Your task to perform on an android device: Open the phone app and click the voicemail tab. Image 0: 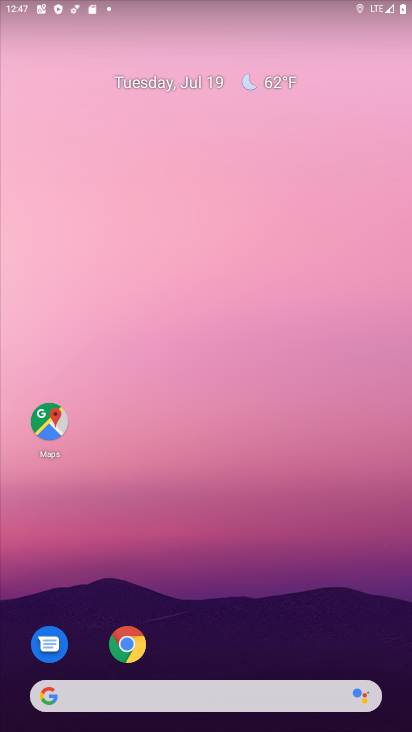
Step 0: drag from (229, 615) to (177, 70)
Your task to perform on an android device: Open the phone app and click the voicemail tab. Image 1: 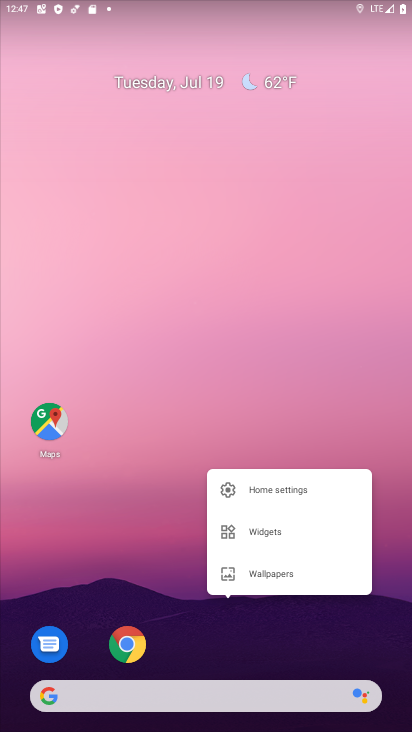
Step 1: click (128, 409)
Your task to perform on an android device: Open the phone app and click the voicemail tab. Image 2: 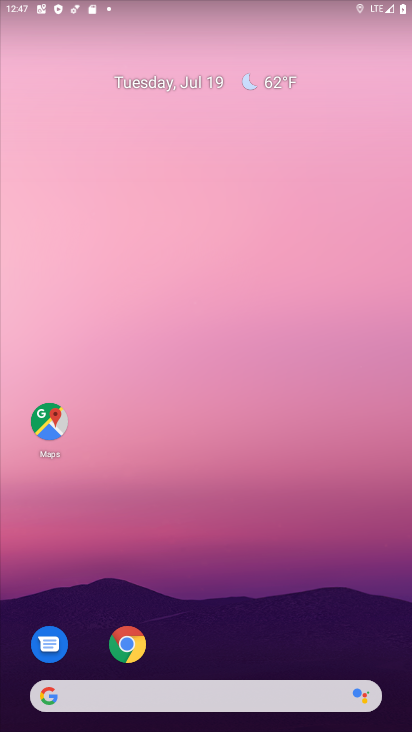
Step 2: drag from (253, 620) to (219, 170)
Your task to perform on an android device: Open the phone app and click the voicemail tab. Image 3: 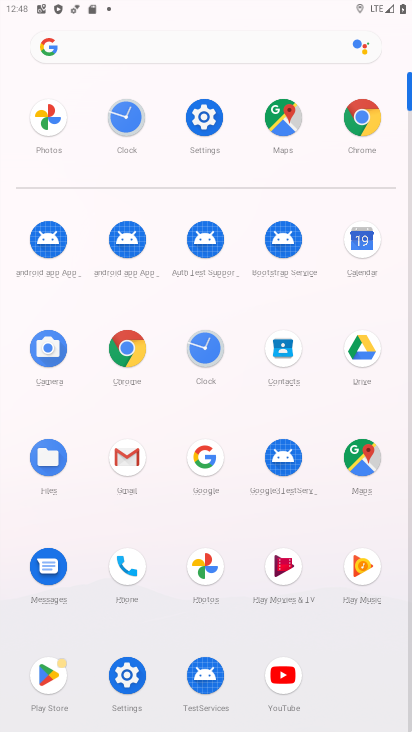
Step 3: click (127, 573)
Your task to perform on an android device: Open the phone app and click the voicemail tab. Image 4: 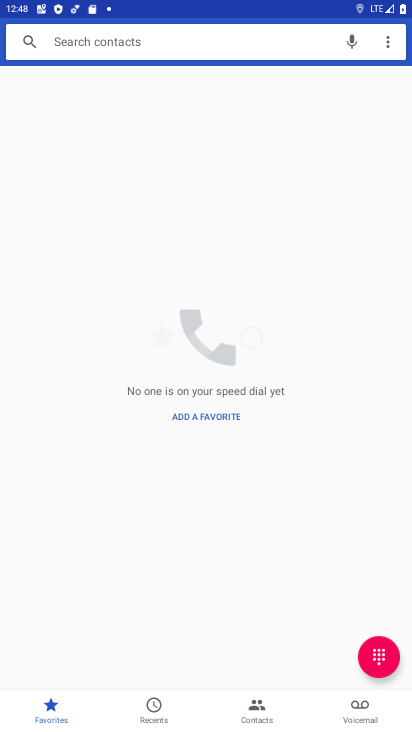
Step 4: click (358, 706)
Your task to perform on an android device: Open the phone app and click the voicemail tab. Image 5: 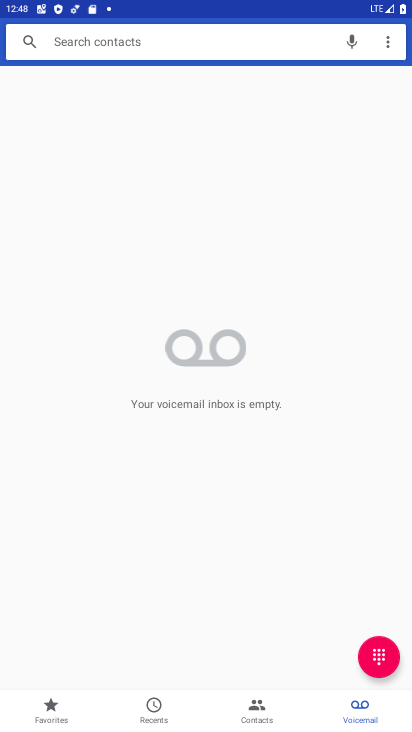
Step 5: click (355, 715)
Your task to perform on an android device: Open the phone app and click the voicemail tab. Image 6: 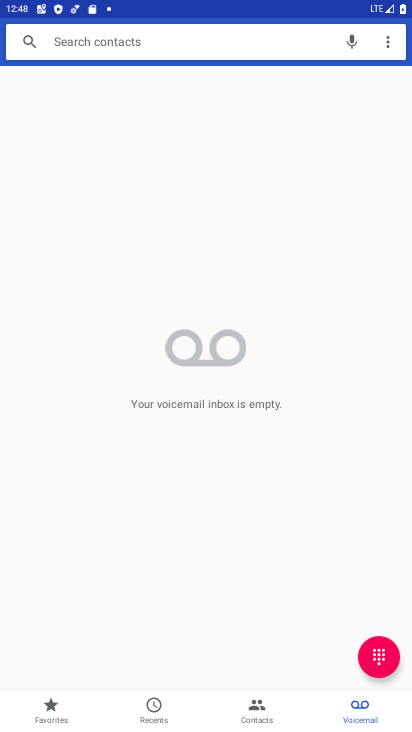
Step 6: task complete